Your task to perform on an android device: Open eBay Image 0: 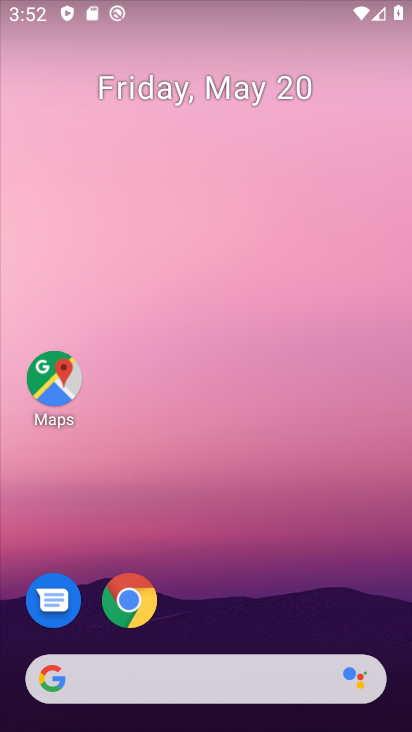
Step 0: drag from (264, 565) to (219, 1)
Your task to perform on an android device: Open eBay Image 1: 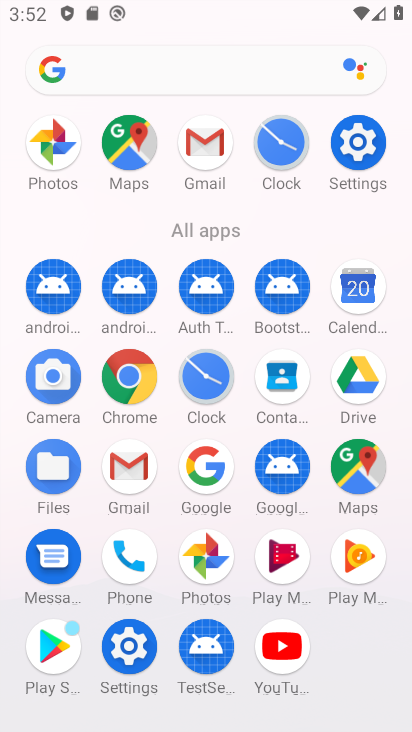
Step 1: click (127, 375)
Your task to perform on an android device: Open eBay Image 2: 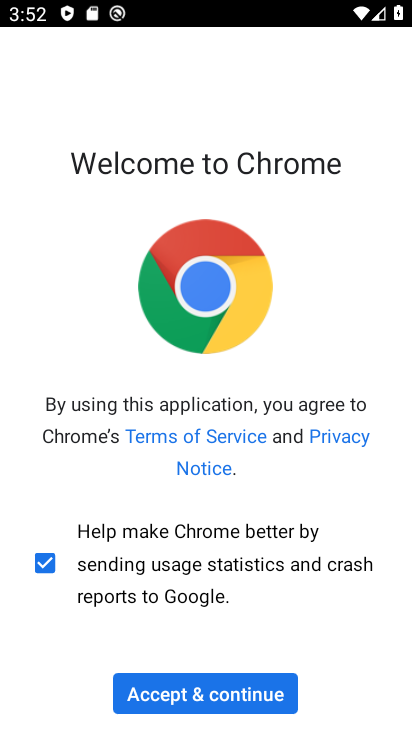
Step 2: click (246, 667)
Your task to perform on an android device: Open eBay Image 3: 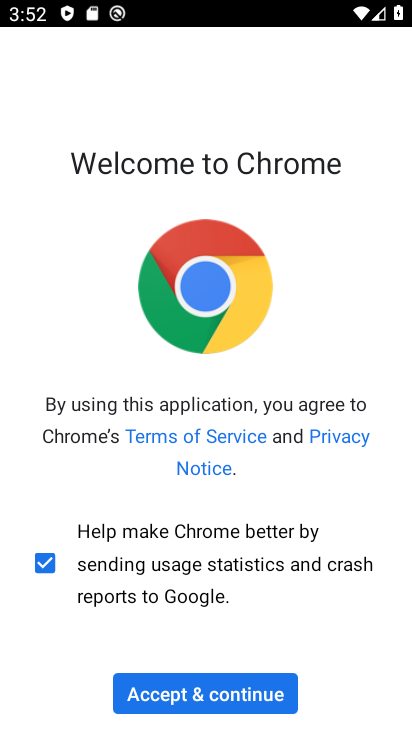
Step 3: click (241, 688)
Your task to perform on an android device: Open eBay Image 4: 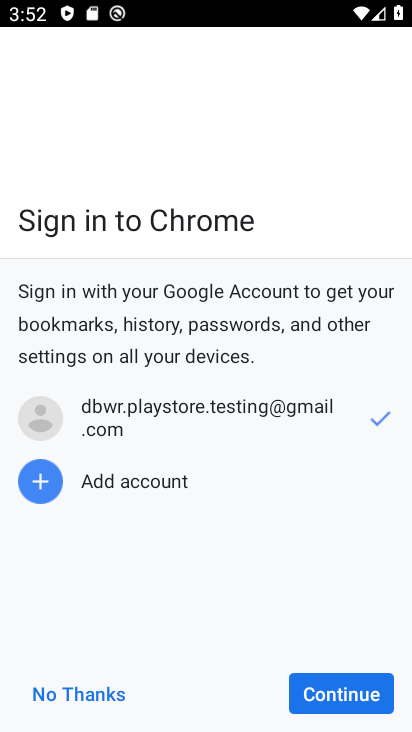
Step 4: click (346, 689)
Your task to perform on an android device: Open eBay Image 5: 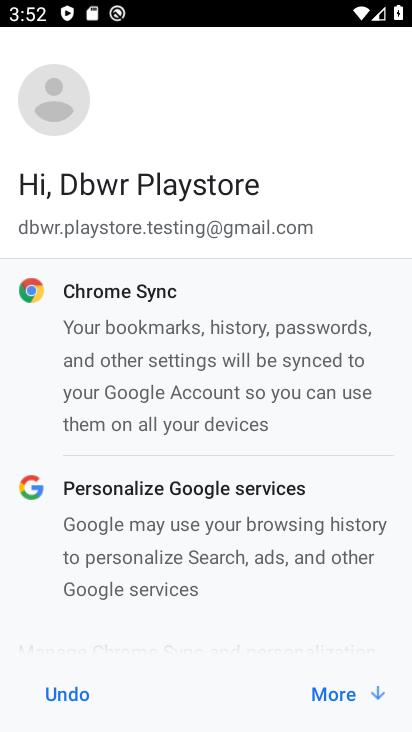
Step 5: click (332, 694)
Your task to perform on an android device: Open eBay Image 6: 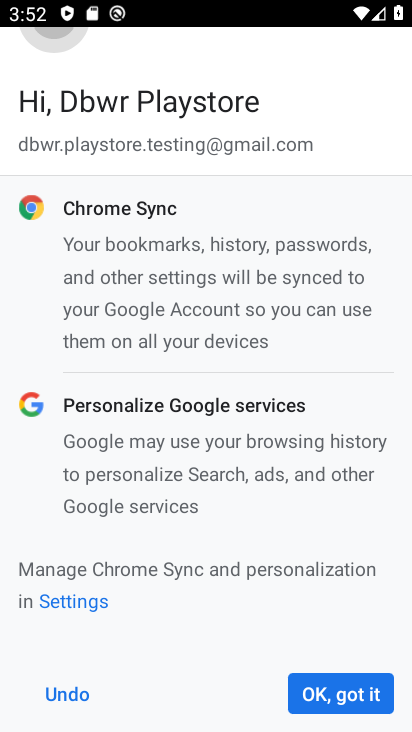
Step 6: click (314, 689)
Your task to perform on an android device: Open eBay Image 7: 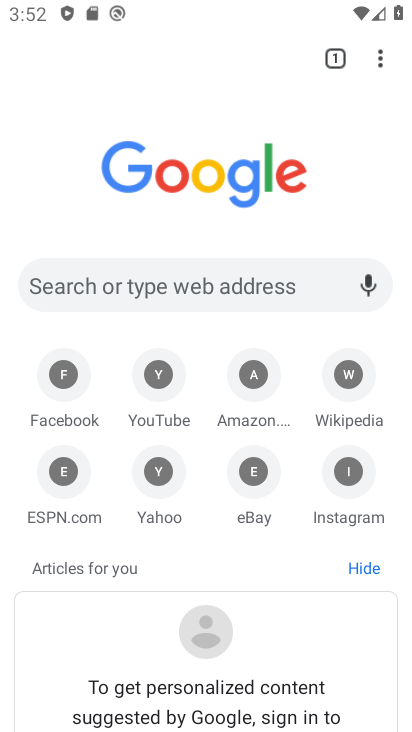
Step 7: click (154, 56)
Your task to perform on an android device: Open eBay Image 8: 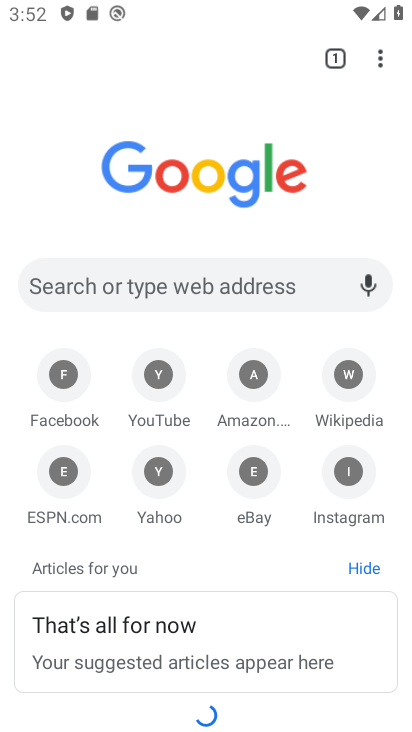
Step 8: click (157, 280)
Your task to perform on an android device: Open eBay Image 9: 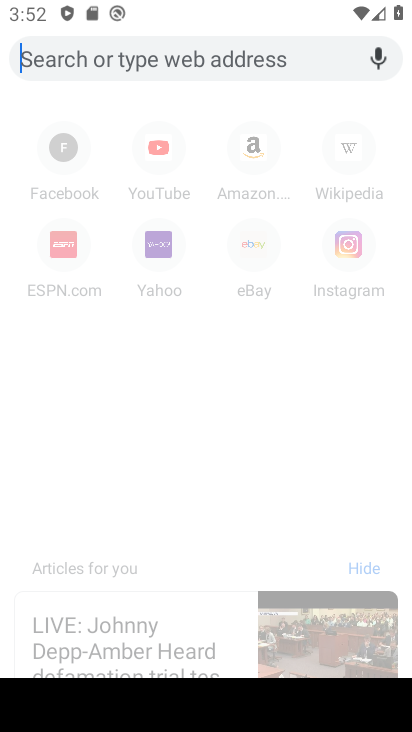
Step 9: type "eBay"
Your task to perform on an android device: Open eBay Image 10: 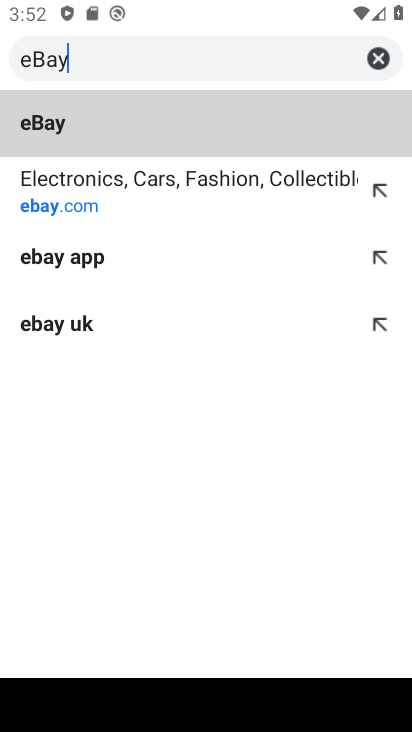
Step 10: type ""
Your task to perform on an android device: Open eBay Image 11: 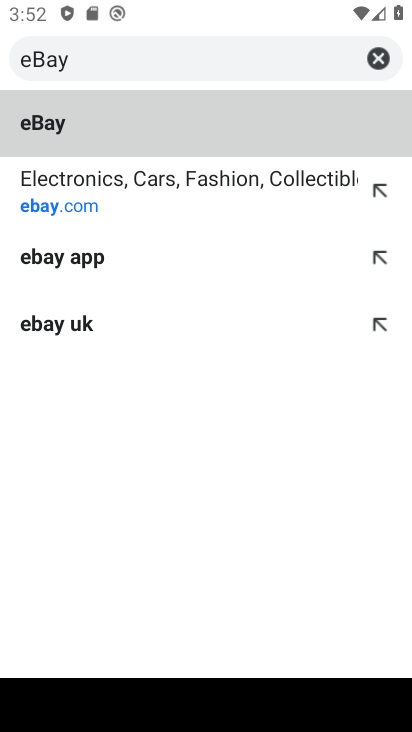
Step 11: click (152, 180)
Your task to perform on an android device: Open eBay Image 12: 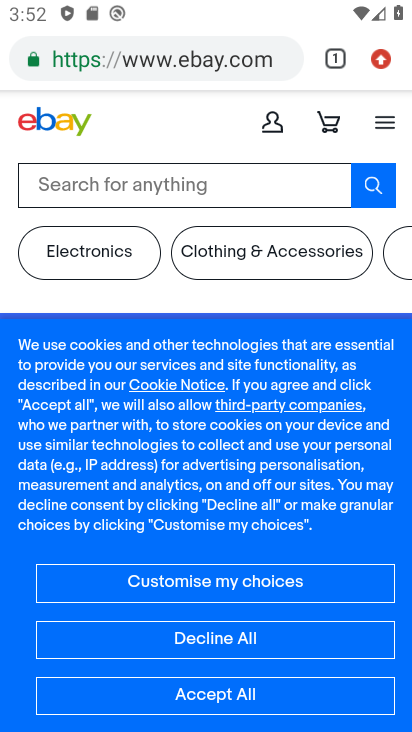
Step 12: click (177, 690)
Your task to perform on an android device: Open eBay Image 13: 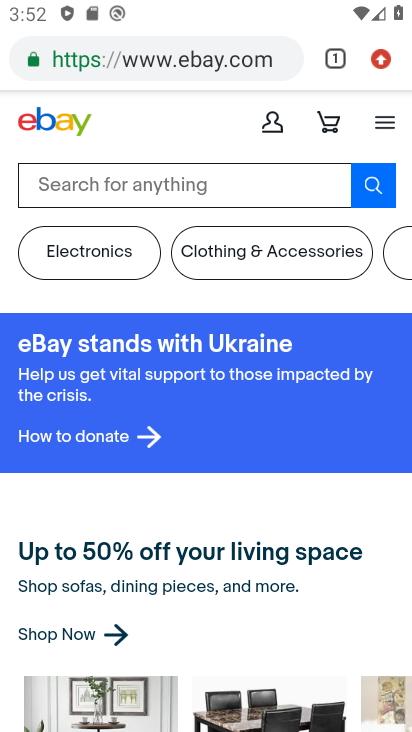
Step 13: task complete